Your task to perform on an android device: change timer sound Image 0: 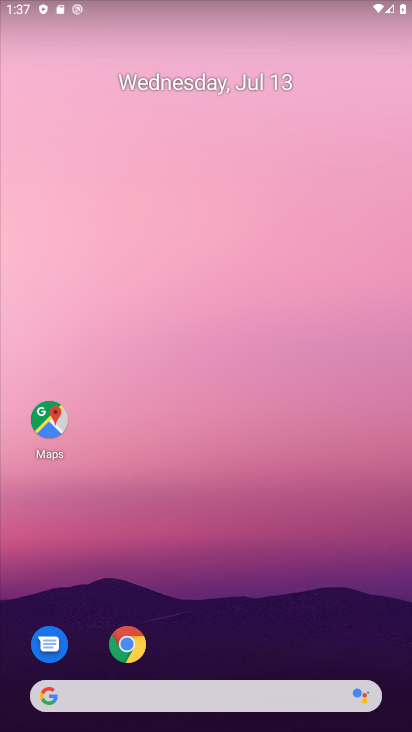
Step 0: drag from (188, 649) to (245, 135)
Your task to perform on an android device: change timer sound Image 1: 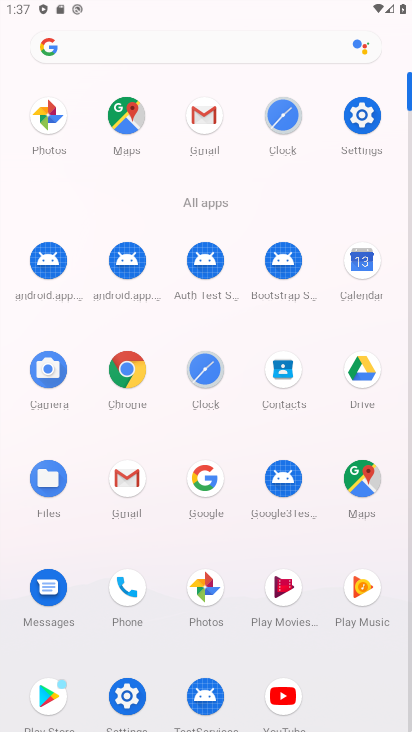
Step 1: click (202, 372)
Your task to perform on an android device: change timer sound Image 2: 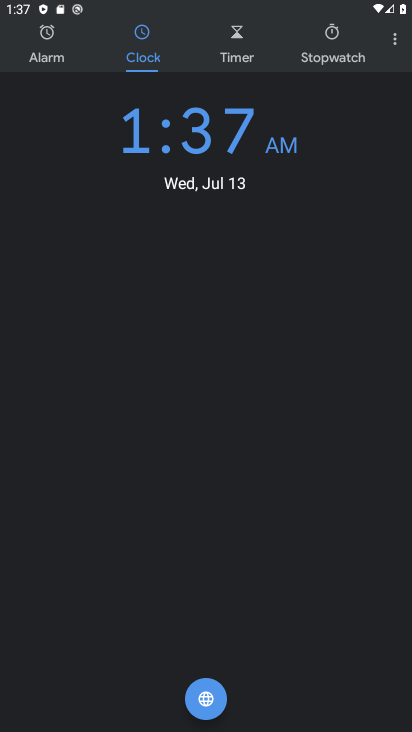
Step 2: click (390, 39)
Your task to perform on an android device: change timer sound Image 3: 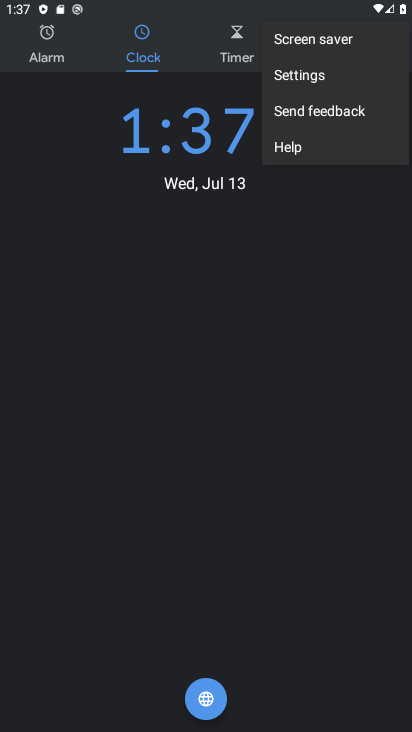
Step 3: click (317, 73)
Your task to perform on an android device: change timer sound Image 4: 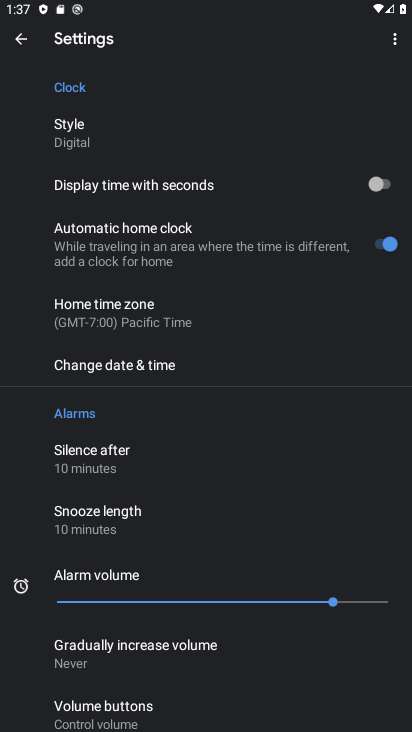
Step 4: drag from (160, 569) to (275, 127)
Your task to perform on an android device: change timer sound Image 5: 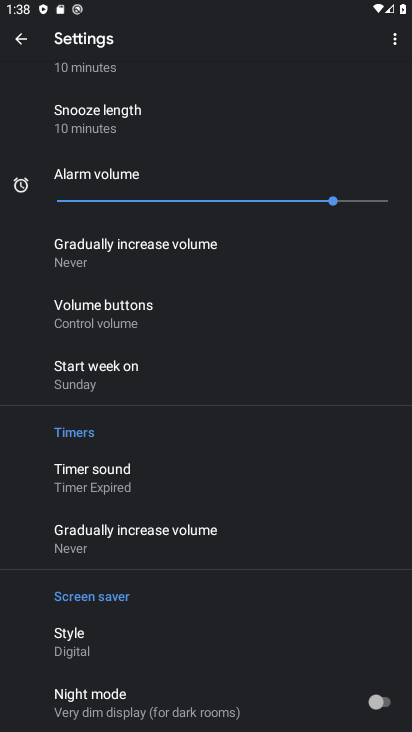
Step 5: click (155, 484)
Your task to perform on an android device: change timer sound Image 6: 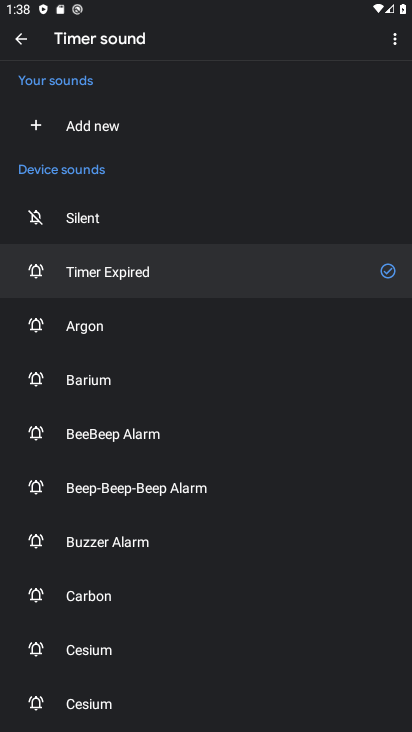
Step 6: click (115, 648)
Your task to perform on an android device: change timer sound Image 7: 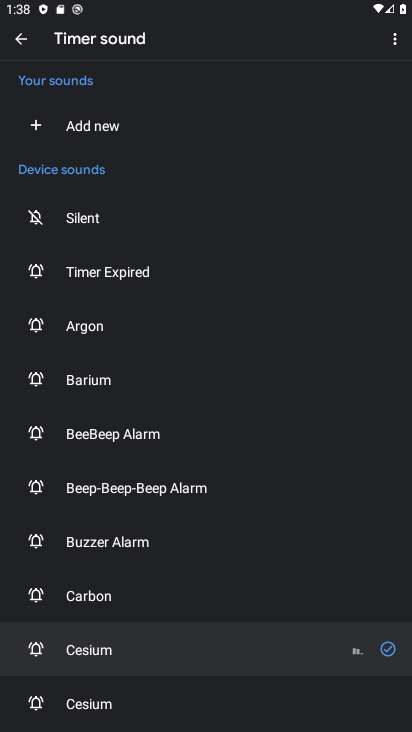
Step 7: task complete